Your task to perform on an android device: Open eBay Image 0: 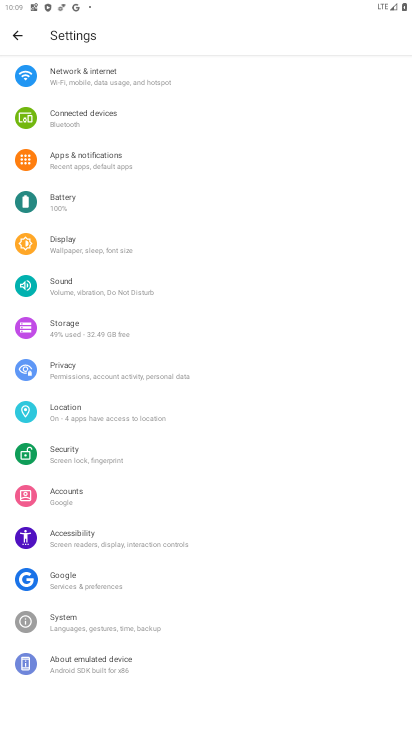
Step 0: press home button
Your task to perform on an android device: Open eBay Image 1: 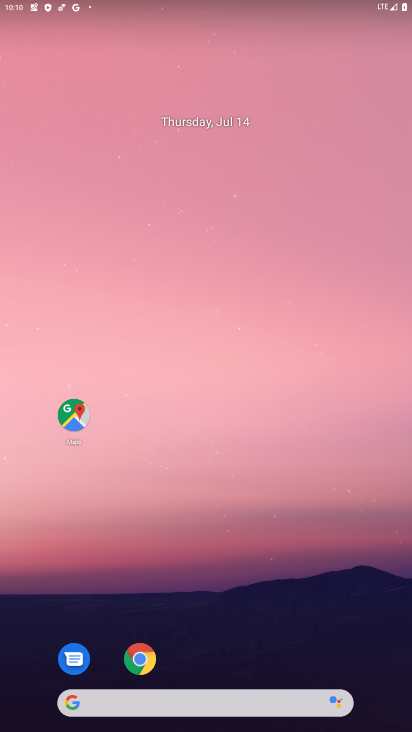
Step 1: drag from (291, 640) to (252, 93)
Your task to perform on an android device: Open eBay Image 2: 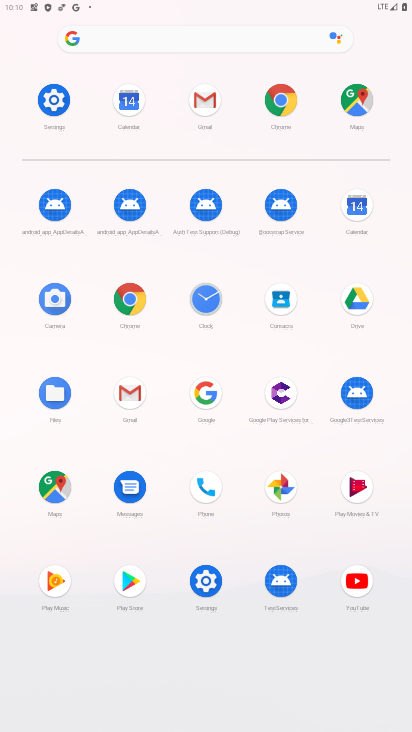
Step 2: click (283, 97)
Your task to perform on an android device: Open eBay Image 3: 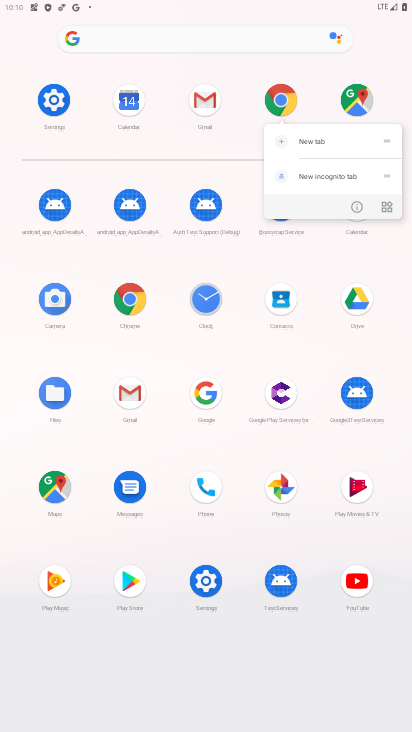
Step 3: click (284, 97)
Your task to perform on an android device: Open eBay Image 4: 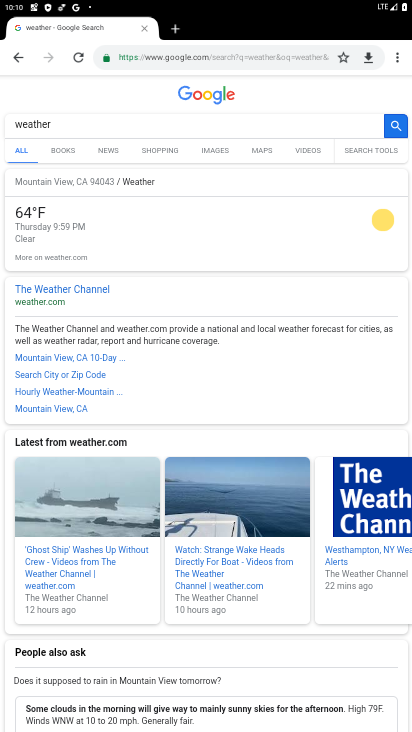
Step 4: click (167, 59)
Your task to perform on an android device: Open eBay Image 5: 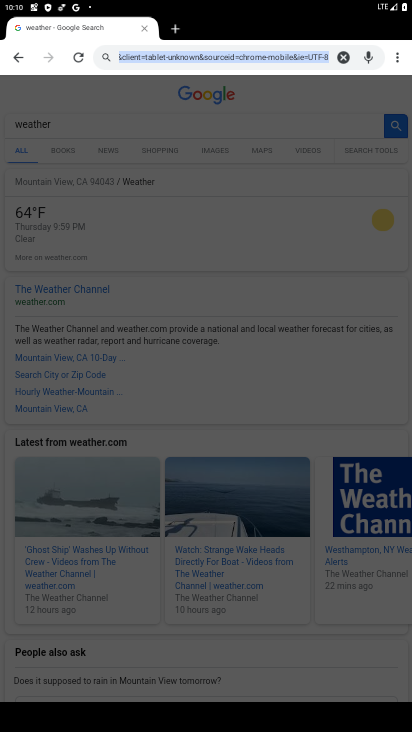
Step 5: type "ebay"
Your task to perform on an android device: Open eBay Image 6: 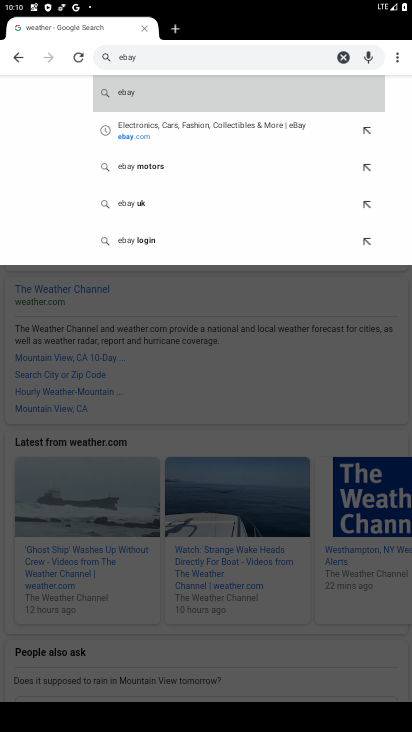
Step 6: click (142, 133)
Your task to perform on an android device: Open eBay Image 7: 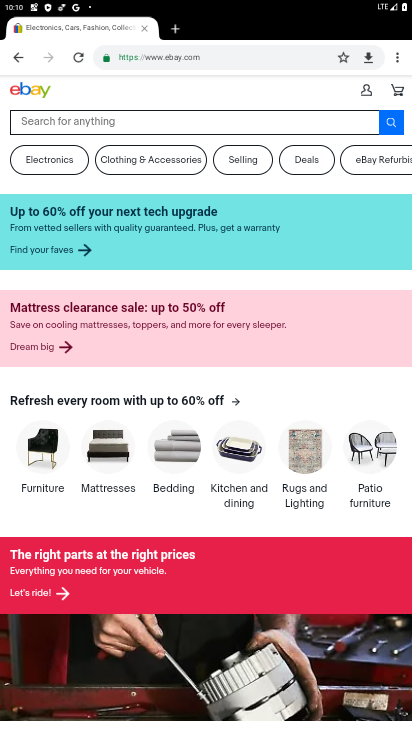
Step 7: task complete